Your task to perform on an android device: Open Google Chrome and open the bookmarks view Image 0: 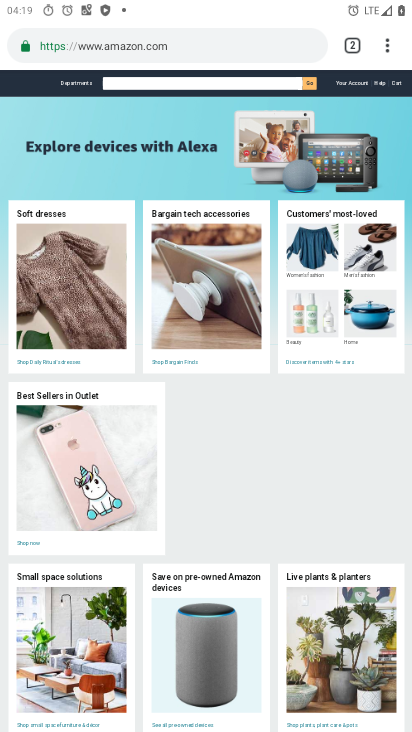
Step 0: click (386, 51)
Your task to perform on an android device: Open Google Chrome and open the bookmarks view Image 1: 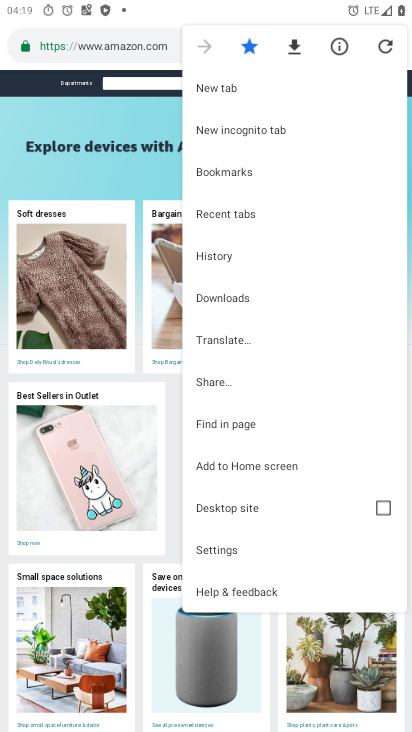
Step 1: click (232, 165)
Your task to perform on an android device: Open Google Chrome and open the bookmarks view Image 2: 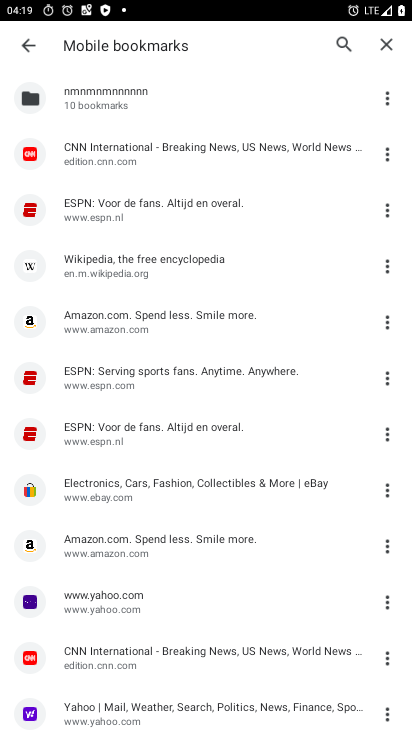
Step 2: task complete